Your task to perform on an android device: Search for Mexican restaurants on Maps Image 0: 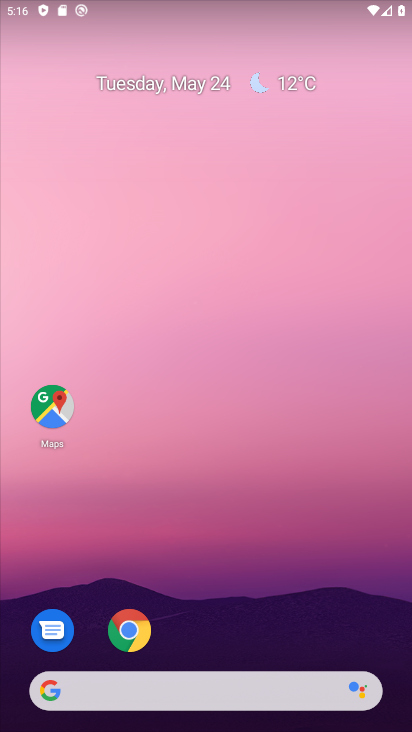
Step 0: click (45, 419)
Your task to perform on an android device: Search for Mexican restaurants on Maps Image 1: 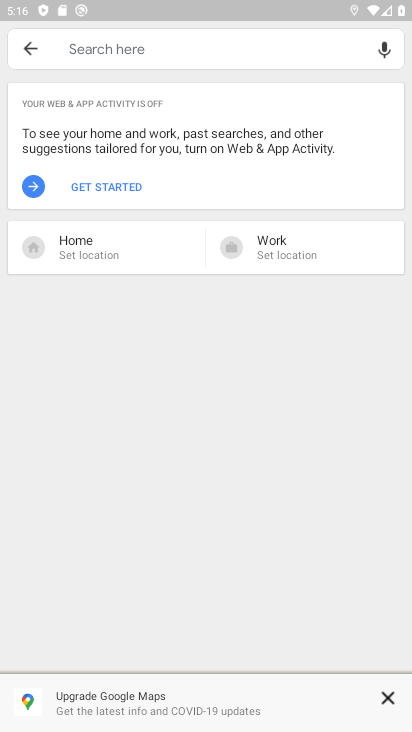
Step 1: click (35, 44)
Your task to perform on an android device: Search for Mexican restaurants on Maps Image 2: 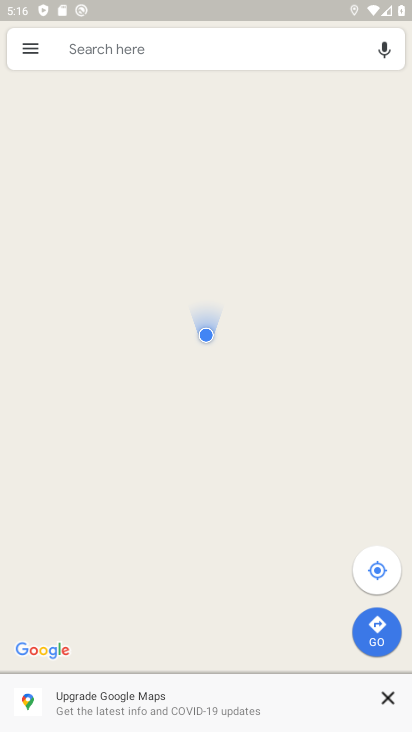
Step 2: click (97, 44)
Your task to perform on an android device: Search for Mexican restaurants on Maps Image 3: 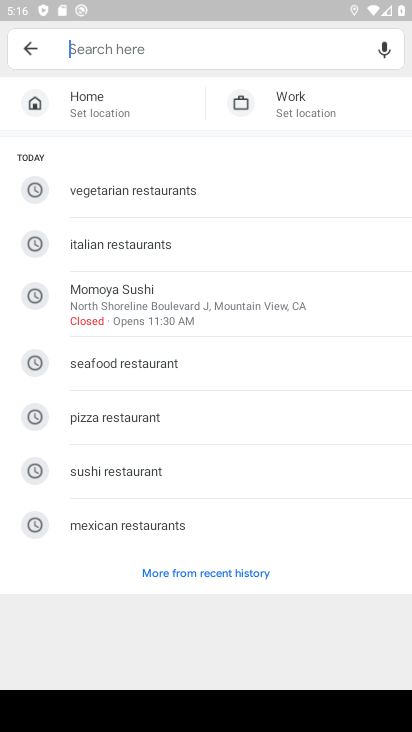
Step 3: click (116, 522)
Your task to perform on an android device: Search for Mexican restaurants on Maps Image 4: 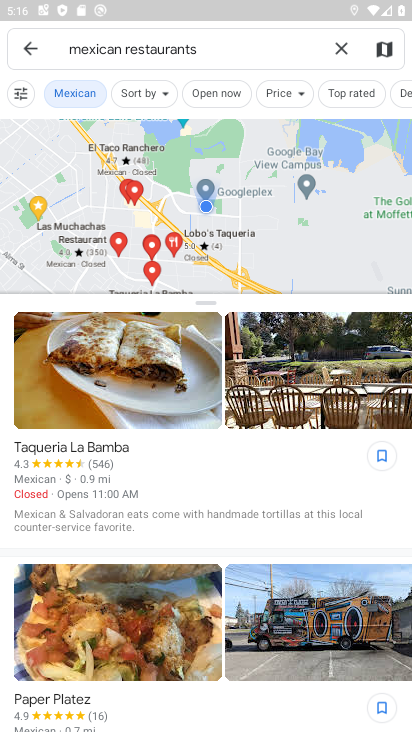
Step 4: task complete